Your task to perform on an android device: Go to notification settings Image 0: 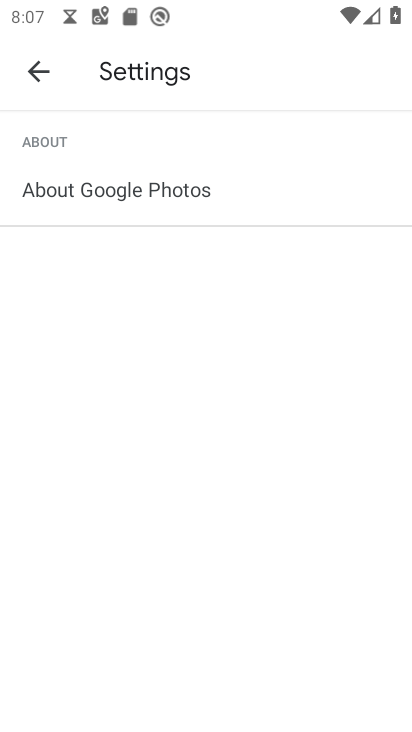
Step 0: press home button
Your task to perform on an android device: Go to notification settings Image 1: 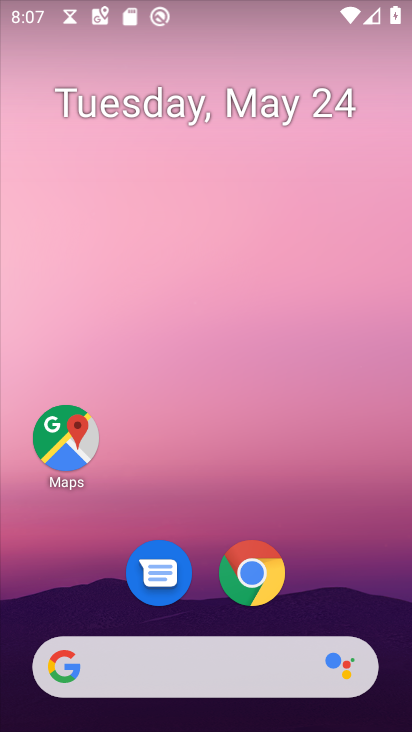
Step 1: drag from (359, 515) to (407, 0)
Your task to perform on an android device: Go to notification settings Image 2: 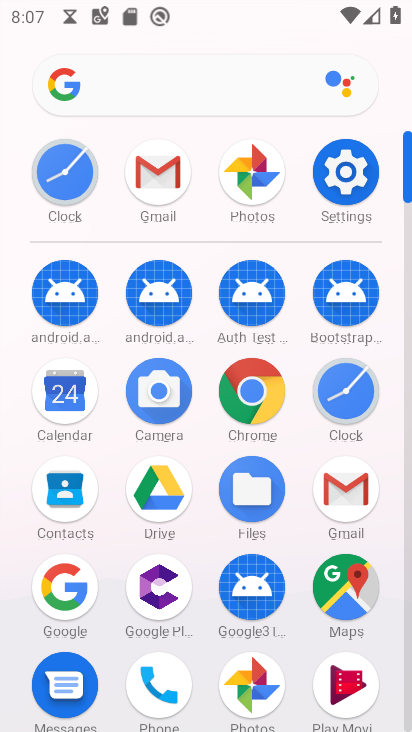
Step 2: click (359, 188)
Your task to perform on an android device: Go to notification settings Image 3: 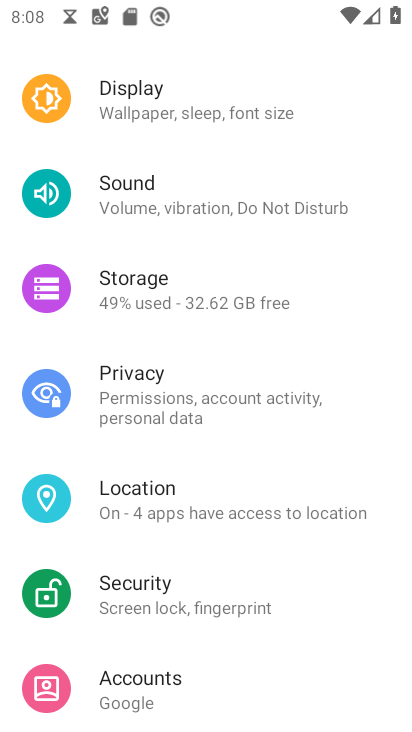
Step 3: drag from (163, 218) to (216, 593)
Your task to perform on an android device: Go to notification settings Image 4: 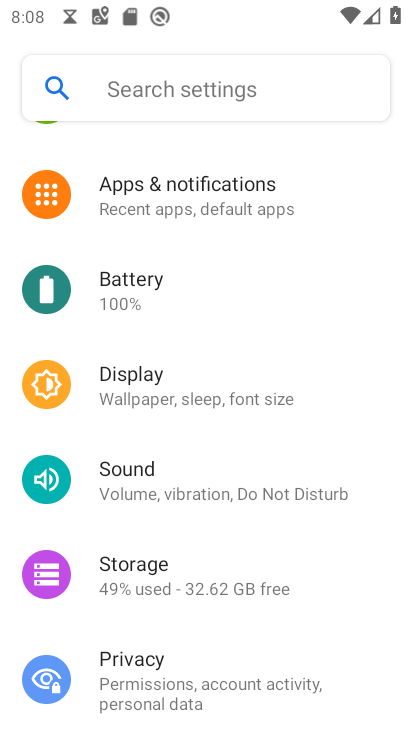
Step 4: click (211, 207)
Your task to perform on an android device: Go to notification settings Image 5: 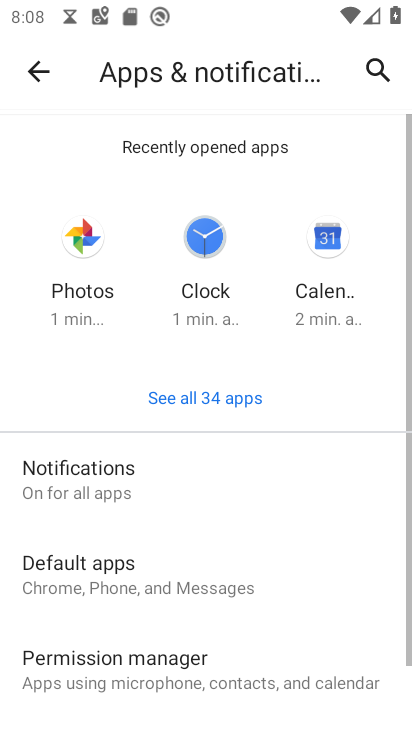
Step 5: click (66, 468)
Your task to perform on an android device: Go to notification settings Image 6: 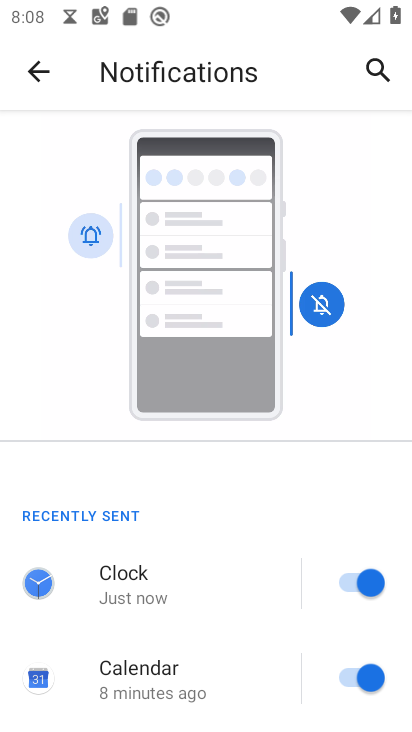
Step 6: task complete